Your task to perform on an android device: search for starred emails in the gmail app Image 0: 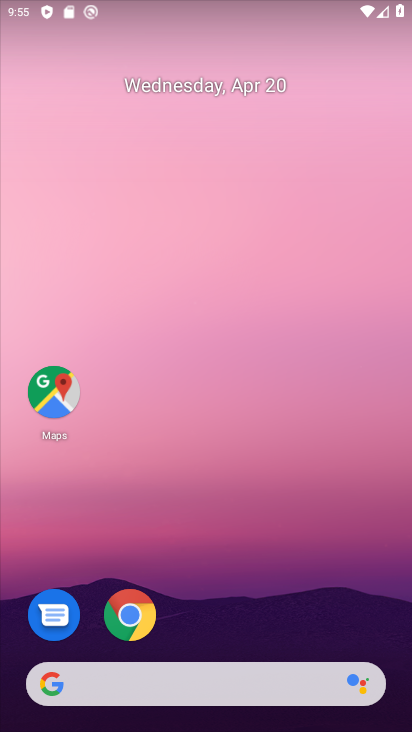
Step 0: drag from (299, 604) to (287, 311)
Your task to perform on an android device: search for starred emails in the gmail app Image 1: 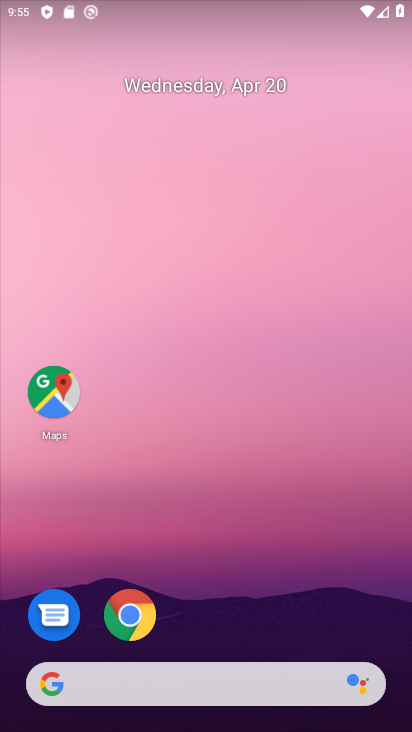
Step 1: drag from (201, 606) to (277, 6)
Your task to perform on an android device: search for starred emails in the gmail app Image 2: 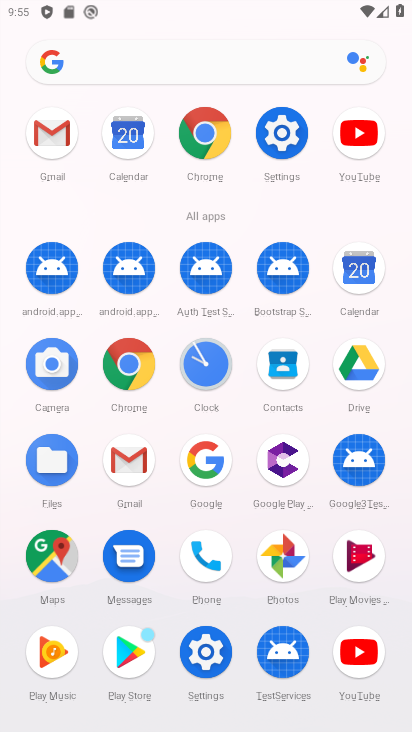
Step 2: click (56, 158)
Your task to perform on an android device: search for starred emails in the gmail app Image 3: 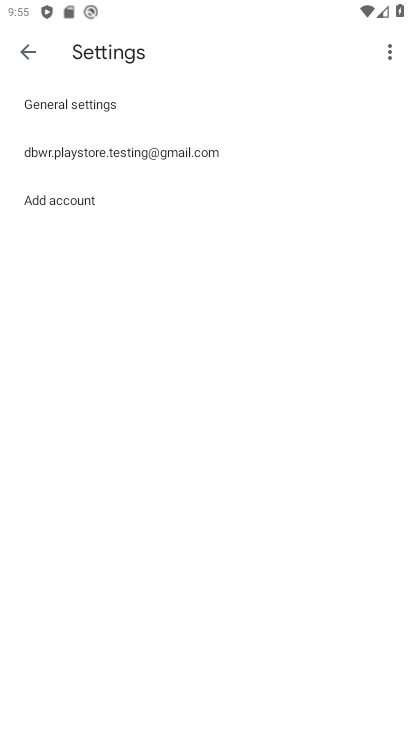
Step 3: click (31, 65)
Your task to perform on an android device: search for starred emails in the gmail app Image 4: 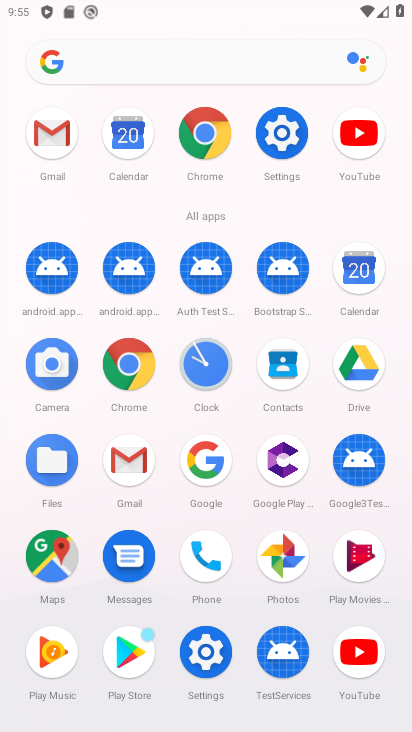
Step 4: click (55, 155)
Your task to perform on an android device: search for starred emails in the gmail app Image 5: 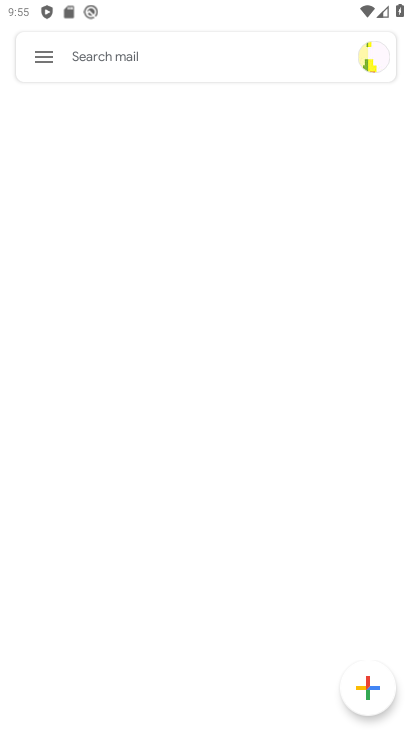
Step 5: click (45, 76)
Your task to perform on an android device: search for starred emails in the gmail app Image 6: 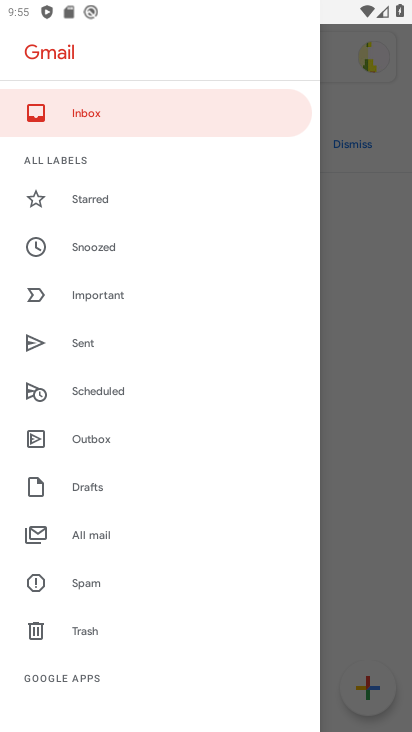
Step 6: click (98, 197)
Your task to perform on an android device: search for starred emails in the gmail app Image 7: 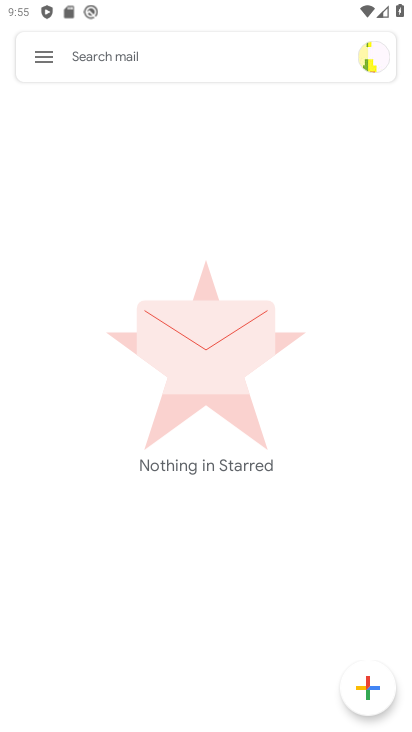
Step 7: task complete